Your task to perform on an android device: turn notification dots off Image 0: 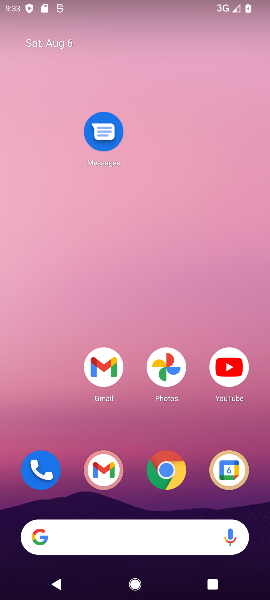
Step 0: drag from (110, 571) to (111, 134)
Your task to perform on an android device: turn notification dots off Image 1: 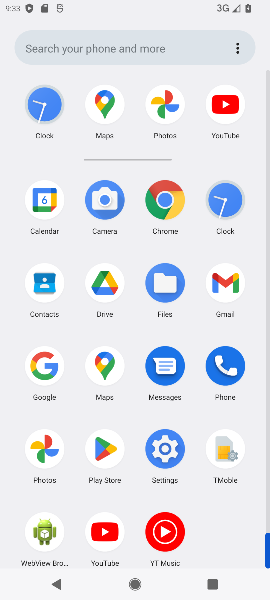
Step 1: click (168, 437)
Your task to perform on an android device: turn notification dots off Image 2: 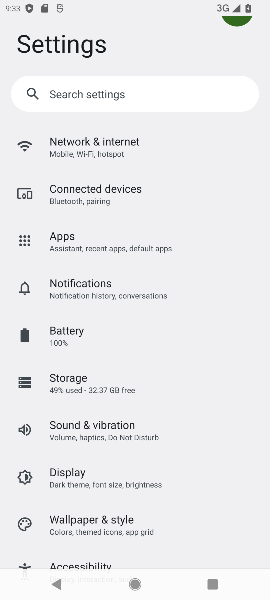
Step 2: click (130, 283)
Your task to perform on an android device: turn notification dots off Image 3: 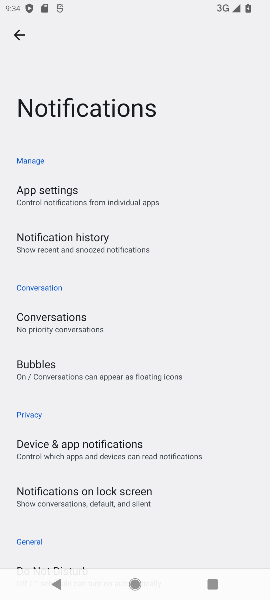
Step 3: task complete